Your task to perform on an android device: Search for vegetarian restaurants on Maps Image 0: 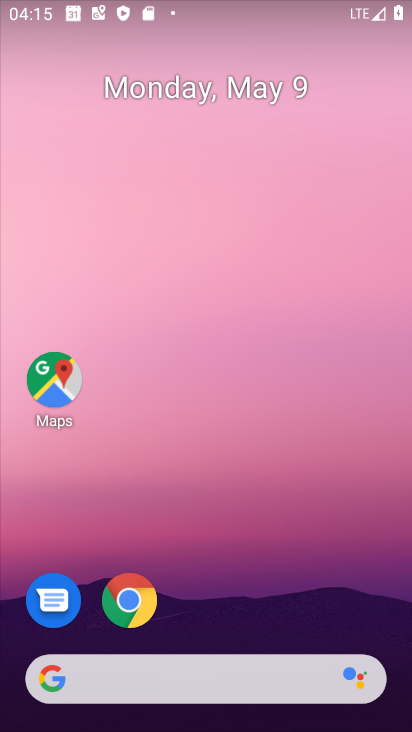
Step 0: drag from (230, 691) to (203, 104)
Your task to perform on an android device: Search for vegetarian restaurants on Maps Image 1: 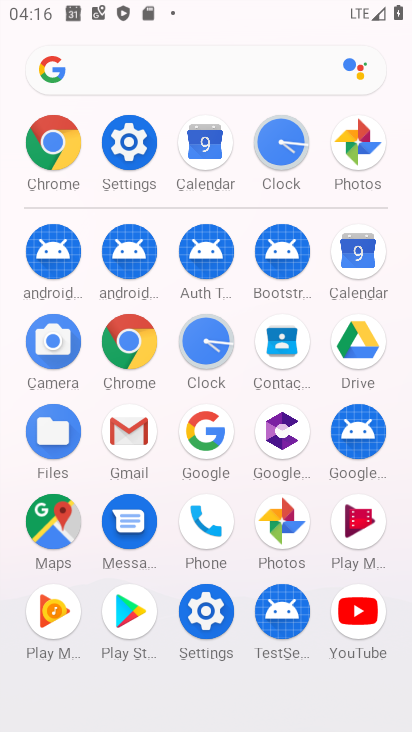
Step 1: click (54, 521)
Your task to perform on an android device: Search for vegetarian restaurants on Maps Image 2: 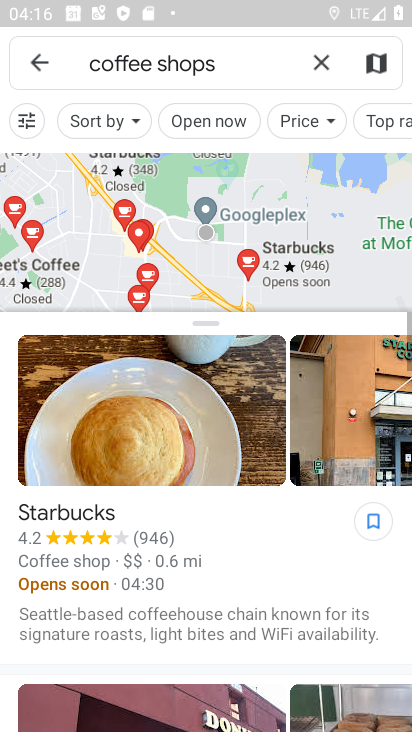
Step 2: click (310, 62)
Your task to perform on an android device: Search for vegetarian restaurants on Maps Image 3: 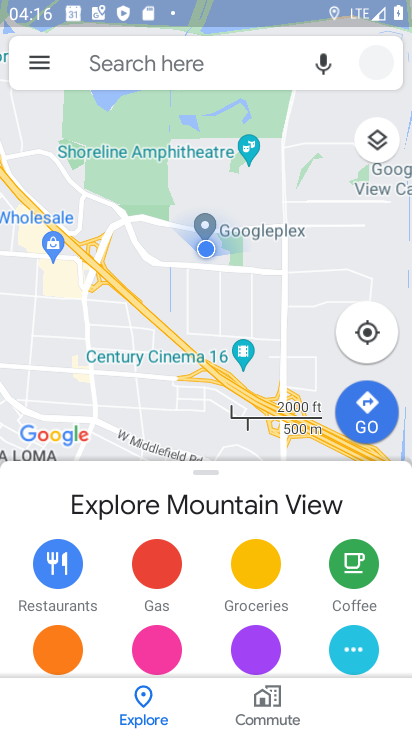
Step 3: click (258, 64)
Your task to perform on an android device: Search for vegetarian restaurants on Maps Image 4: 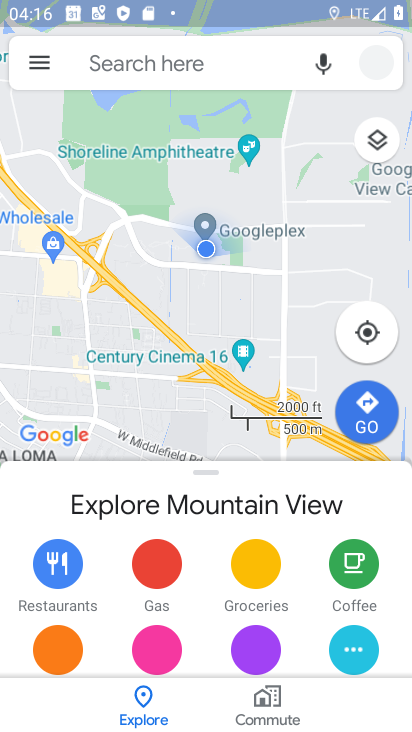
Step 4: click (258, 64)
Your task to perform on an android device: Search for vegetarian restaurants on Maps Image 5: 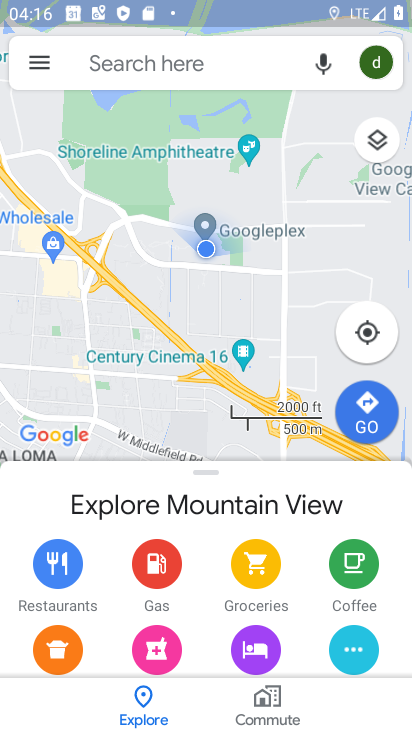
Step 5: click (258, 64)
Your task to perform on an android device: Search for vegetarian restaurants on Maps Image 6: 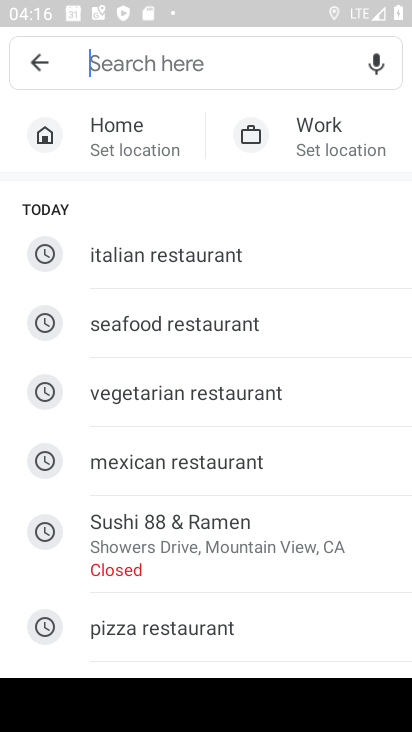
Step 6: click (277, 308)
Your task to perform on an android device: Search for vegetarian restaurants on Maps Image 7: 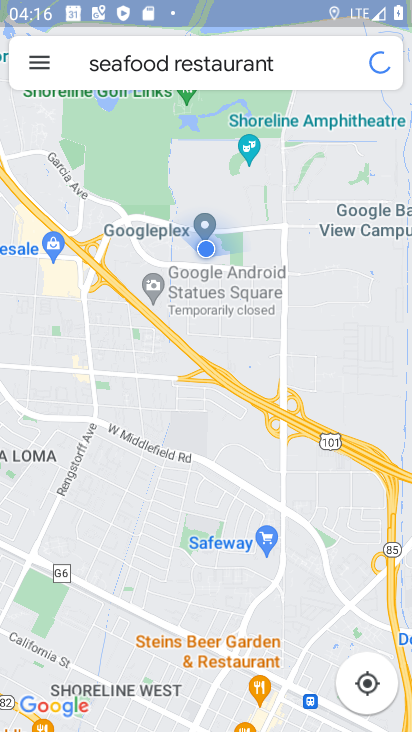
Step 7: click (296, 53)
Your task to perform on an android device: Search for vegetarian restaurants on Maps Image 8: 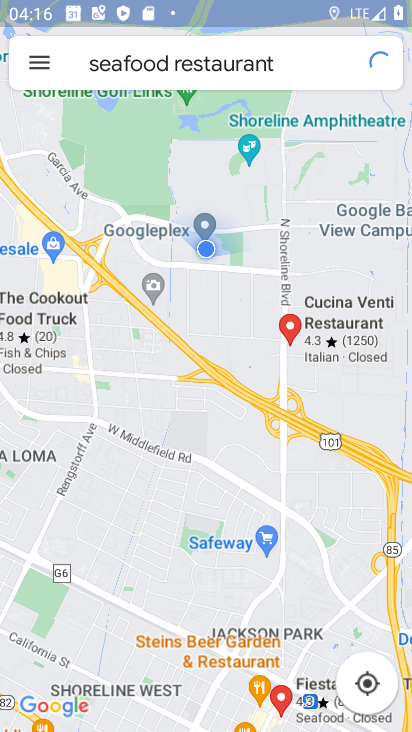
Step 8: click (296, 53)
Your task to perform on an android device: Search for vegetarian restaurants on Maps Image 9: 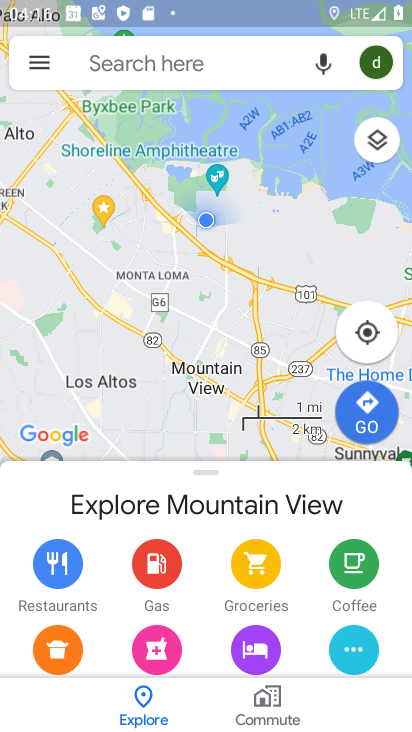
Step 9: click (242, 51)
Your task to perform on an android device: Search for vegetarian restaurants on Maps Image 10: 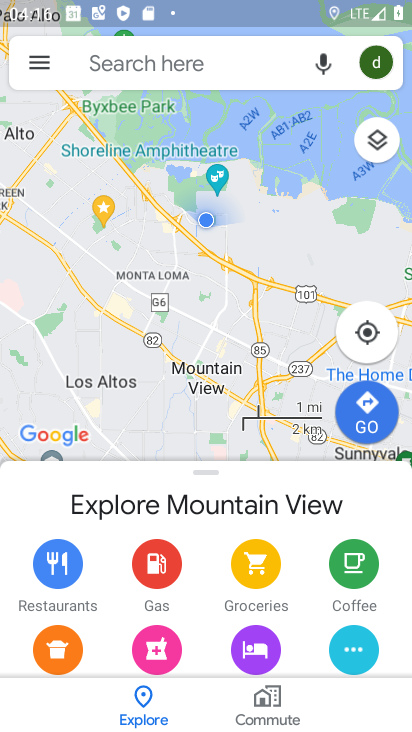
Step 10: click (241, 51)
Your task to perform on an android device: Search for vegetarian restaurants on Maps Image 11: 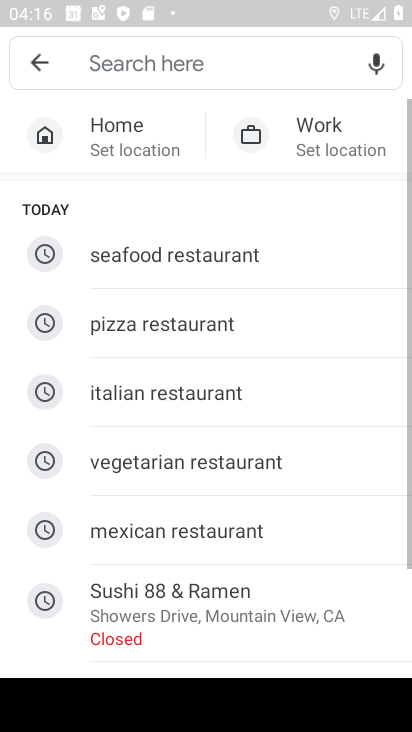
Step 11: click (224, 470)
Your task to perform on an android device: Search for vegetarian restaurants on Maps Image 12: 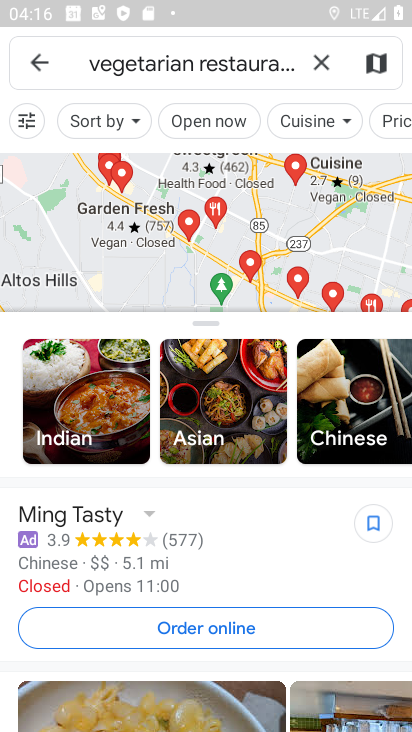
Step 12: task complete